Your task to perform on an android device: turn pop-ups off in chrome Image 0: 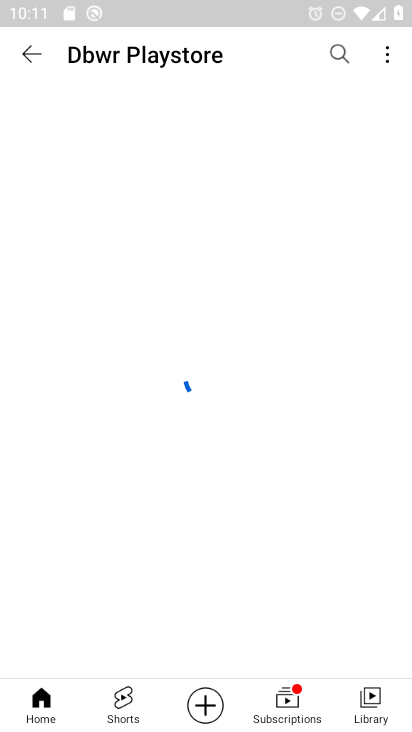
Step 0: drag from (382, 619) to (256, 127)
Your task to perform on an android device: turn pop-ups off in chrome Image 1: 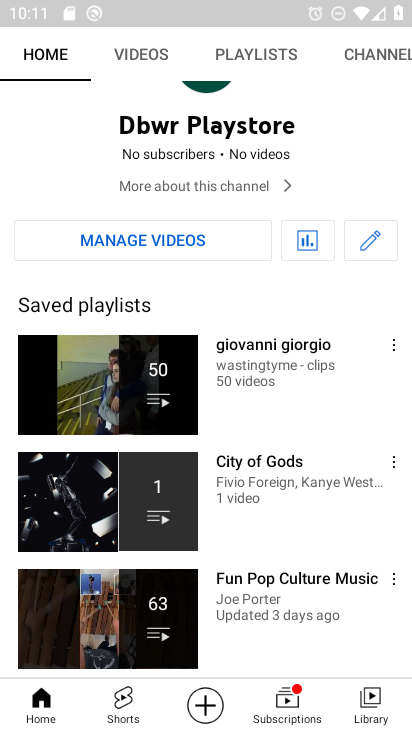
Step 1: press home button
Your task to perform on an android device: turn pop-ups off in chrome Image 2: 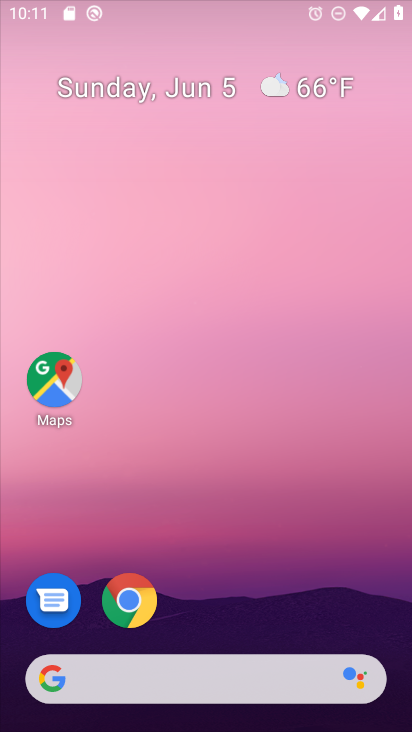
Step 2: drag from (383, 609) to (241, 17)
Your task to perform on an android device: turn pop-ups off in chrome Image 3: 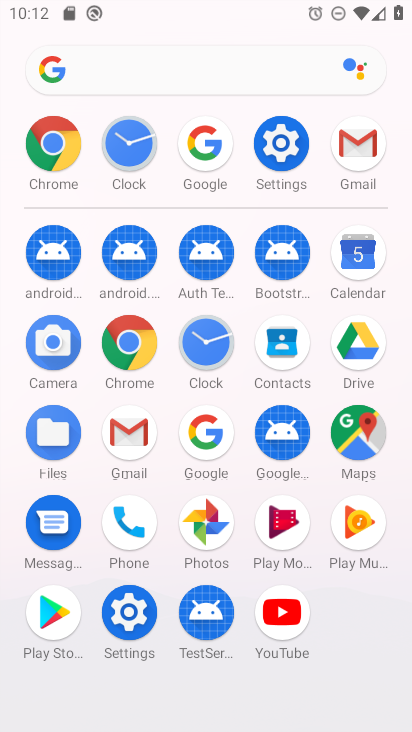
Step 3: click (118, 360)
Your task to perform on an android device: turn pop-ups off in chrome Image 4: 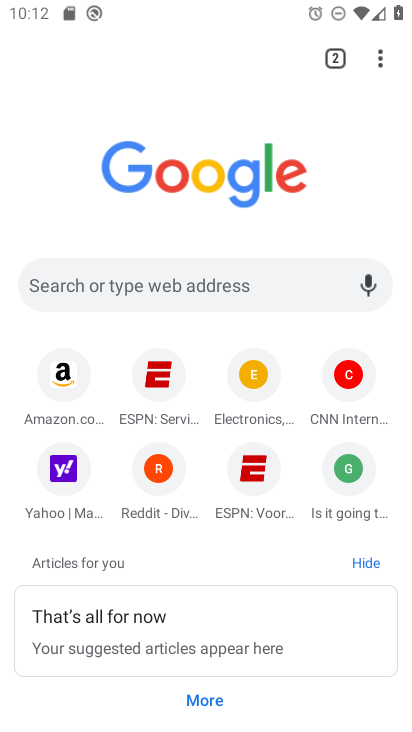
Step 4: click (382, 51)
Your task to perform on an android device: turn pop-ups off in chrome Image 5: 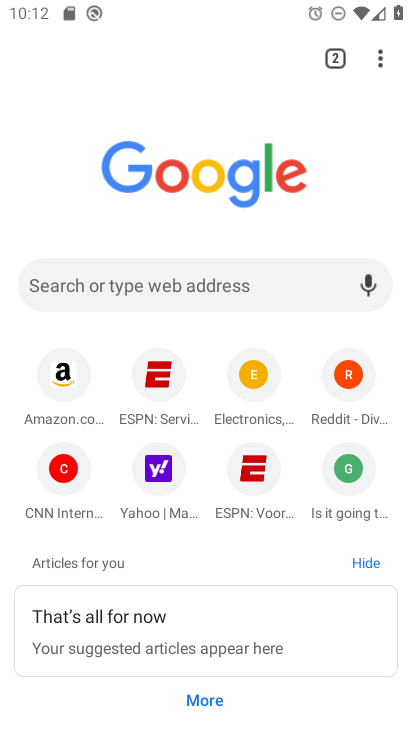
Step 5: click (378, 51)
Your task to perform on an android device: turn pop-ups off in chrome Image 6: 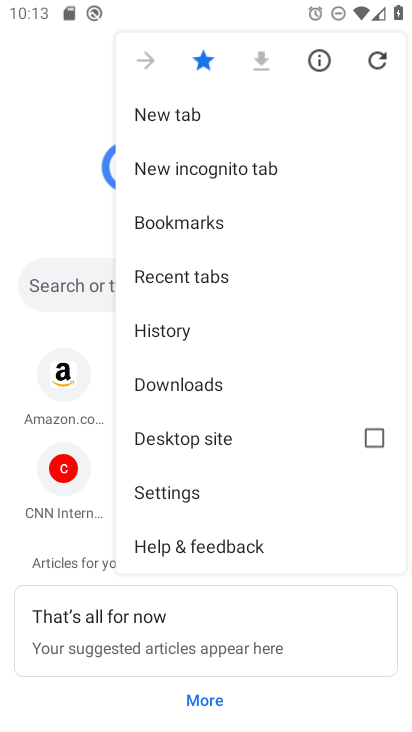
Step 6: click (192, 502)
Your task to perform on an android device: turn pop-ups off in chrome Image 7: 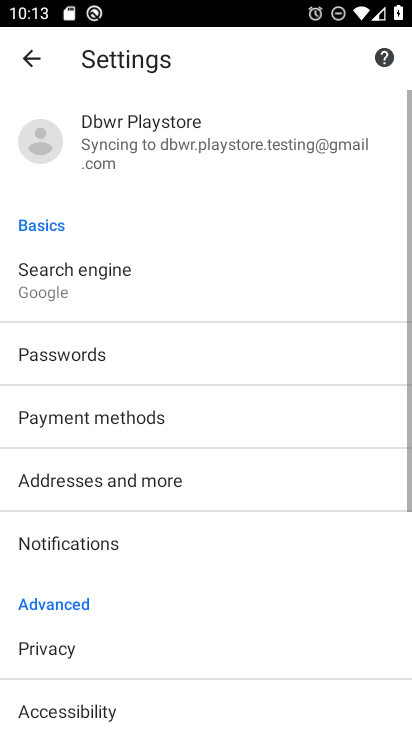
Step 7: click (132, 674)
Your task to perform on an android device: turn pop-ups off in chrome Image 8: 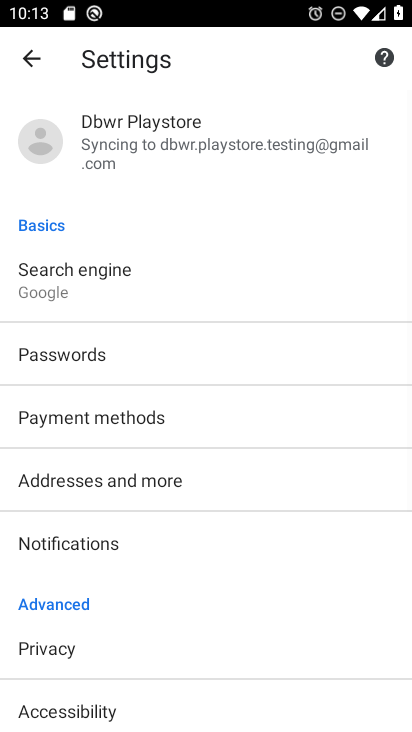
Step 8: drag from (165, 599) to (202, 208)
Your task to perform on an android device: turn pop-ups off in chrome Image 9: 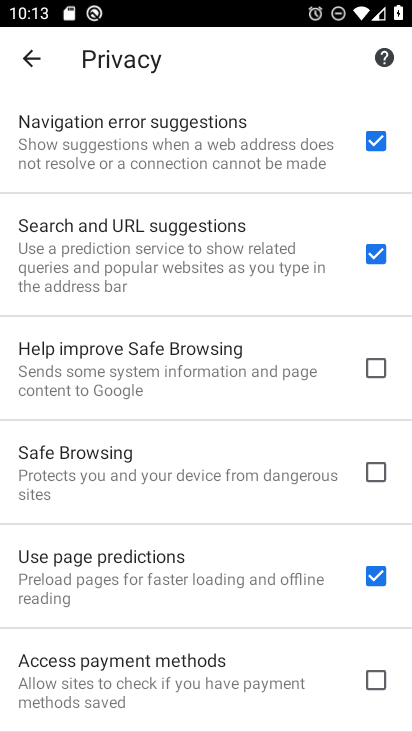
Step 9: press back button
Your task to perform on an android device: turn pop-ups off in chrome Image 10: 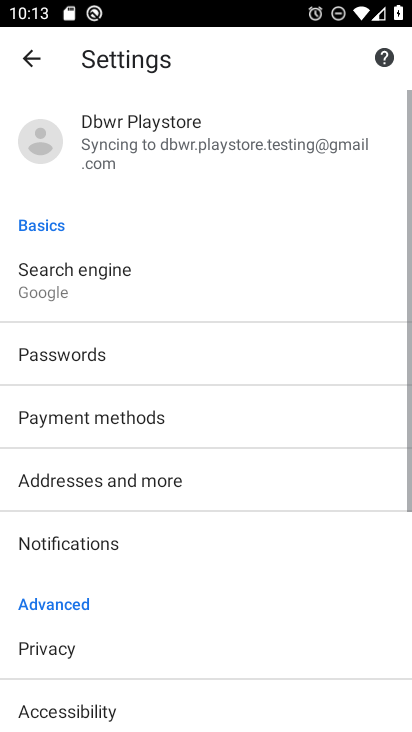
Step 10: drag from (235, 631) to (191, 125)
Your task to perform on an android device: turn pop-ups off in chrome Image 11: 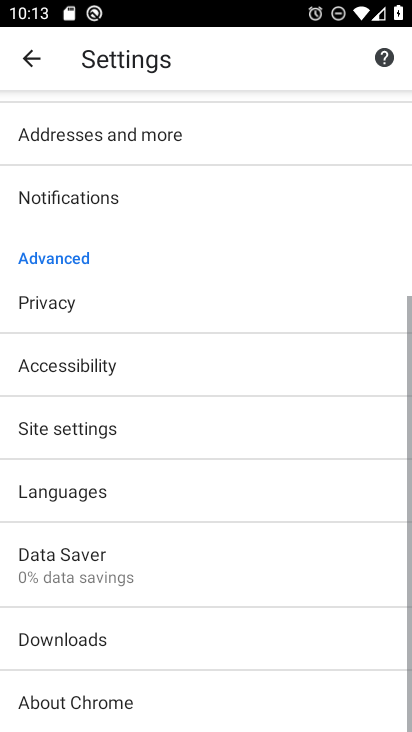
Step 11: click (104, 426)
Your task to perform on an android device: turn pop-ups off in chrome Image 12: 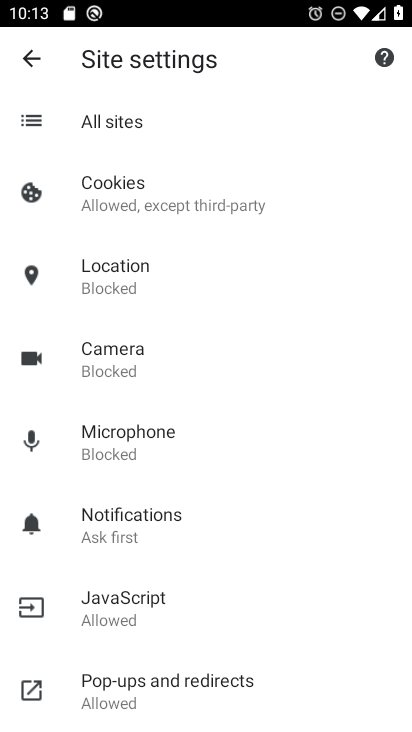
Step 12: click (170, 688)
Your task to perform on an android device: turn pop-ups off in chrome Image 13: 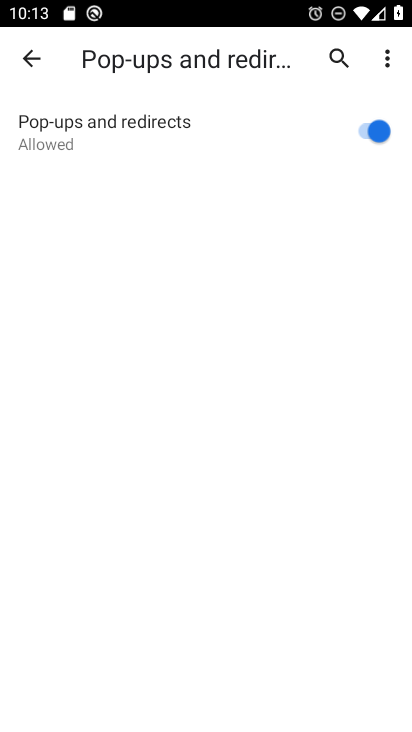
Step 13: click (353, 120)
Your task to perform on an android device: turn pop-ups off in chrome Image 14: 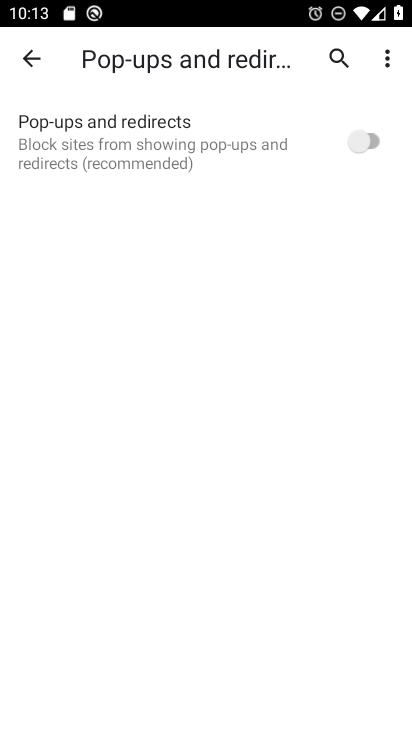
Step 14: task complete